Your task to perform on an android device: change the upload size in google photos Image 0: 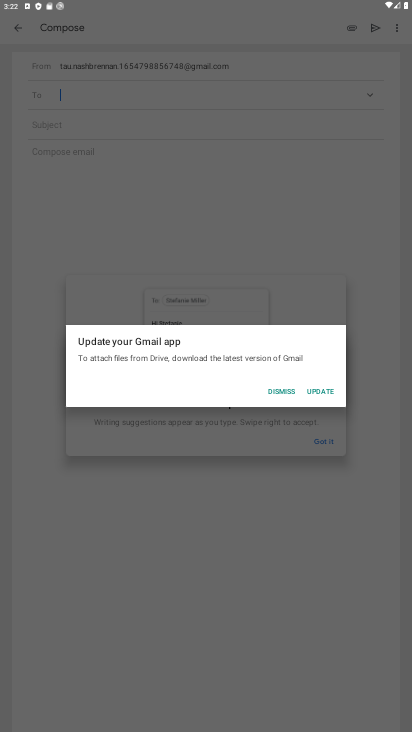
Step 0: press home button
Your task to perform on an android device: change the upload size in google photos Image 1: 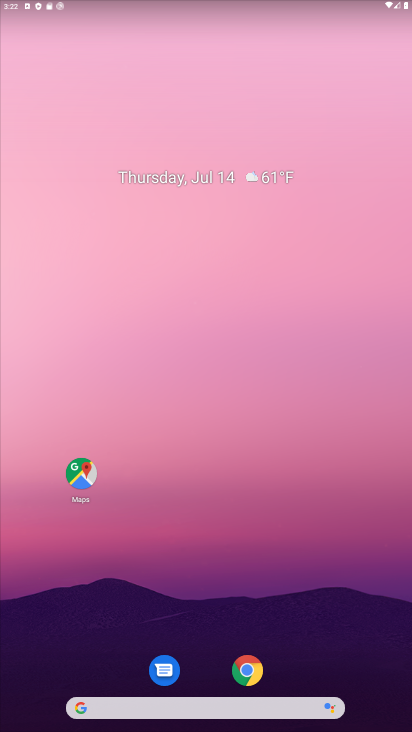
Step 1: drag from (236, 449) to (226, 264)
Your task to perform on an android device: change the upload size in google photos Image 2: 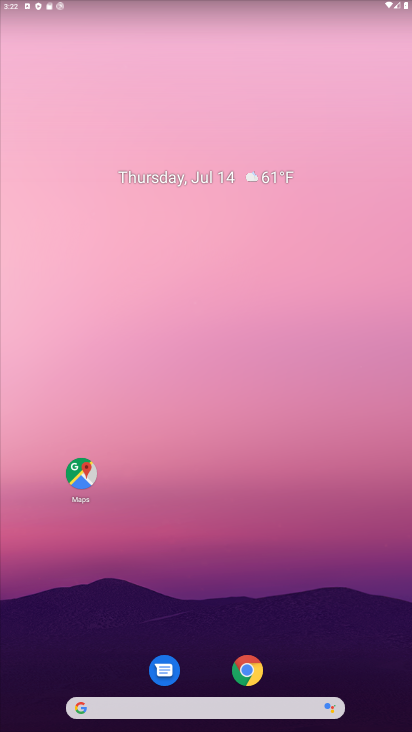
Step 2: drag from (228, 616) to (292, 51)
Your task to perform on an android device: change the upload size in google photos Image 3: 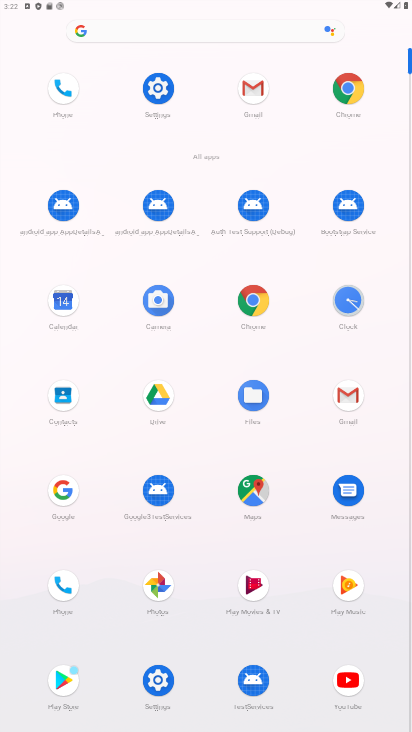
Step 3: click (159, 582)
Your task to perform on an android device: change the upload size in google photos Image 4: 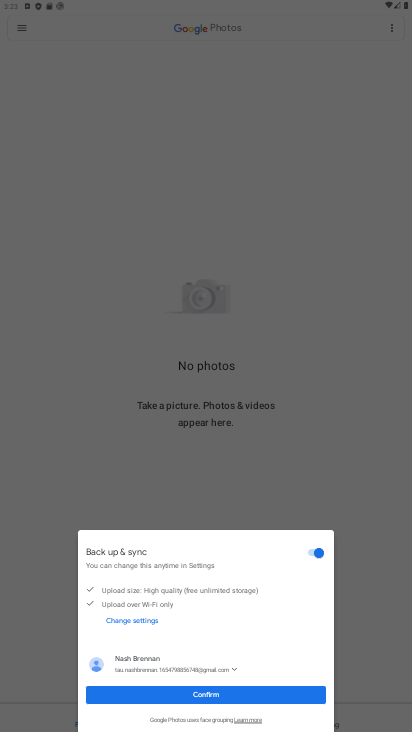
Step 4: click (138, 623)
Your task to perform on an android device: change the upload size in google photos Image 5: 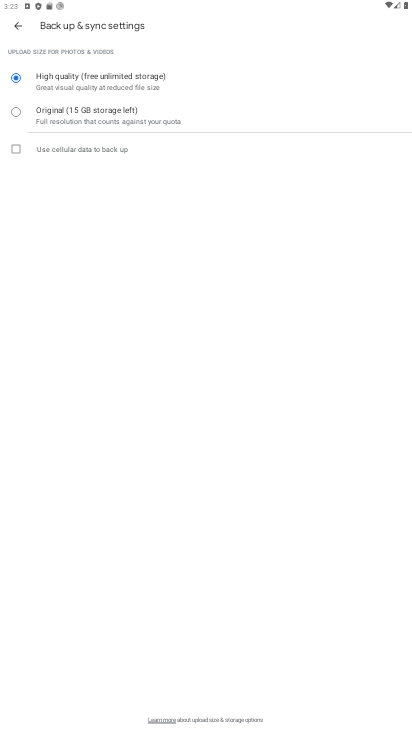
Step 5: click (146, 119)
Your task to perform on an android device: change the upload size in google photos Image 6: 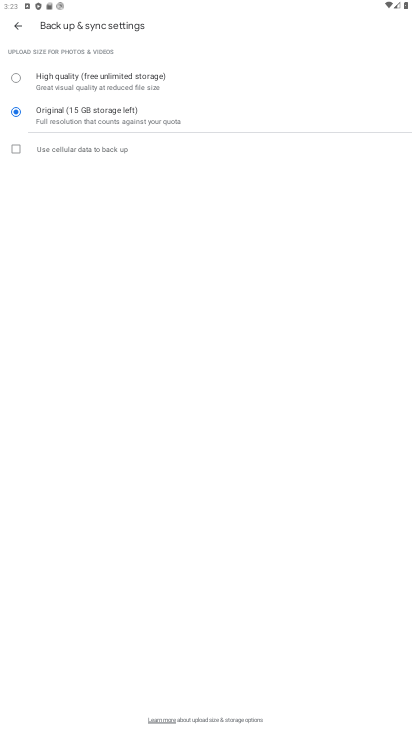
Step 6: task complete